Your task to perform on an android device: open chrome and create a bookmark for the current page Image 0: 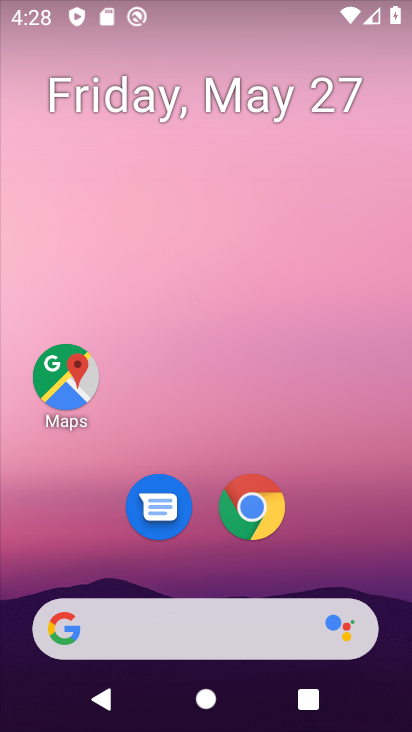
Step 0: click (251, 505)
Your task to perform on an android device: open chrome and create a bookmark for the current page Image 1: 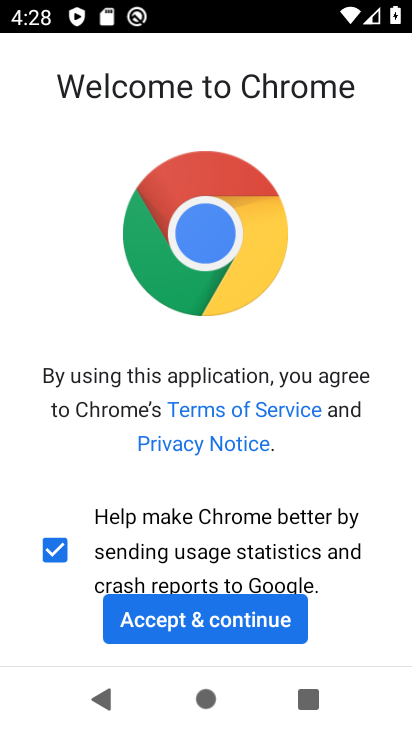
Step 1: click (205, 623)
Your task to perform on an android device: open chrome and create a bookmark for the current page Image 2: 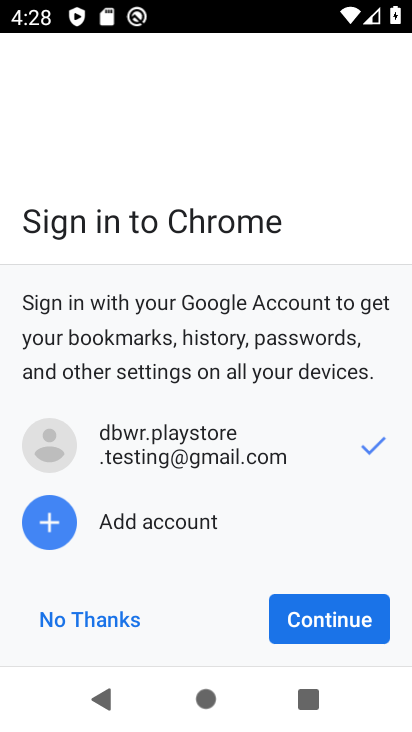
Step 2: click (321, 615)
Your task to perform on an android device: open chrome and create a bookmark for the current page Image 3: 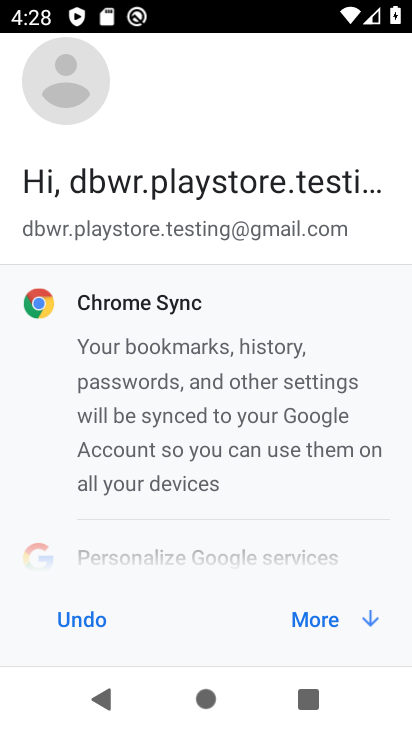
Step 3: click (321, 618)
Your task to perform on an android device: open chrome and create a bookmark for the current page Image 4: 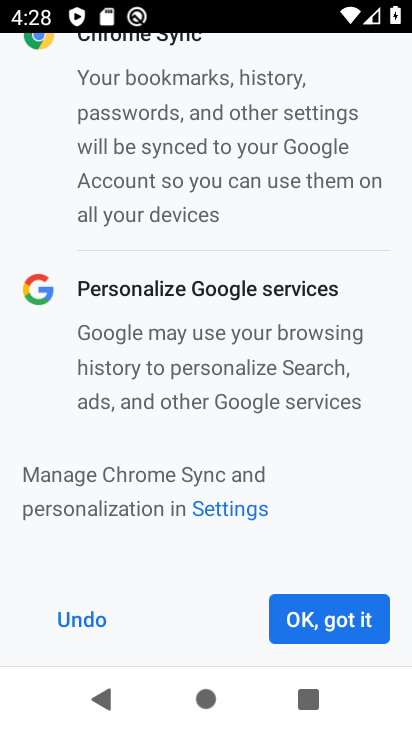
Step 4: click (321, 618)
Your task to perform on an android device: open chrome and create a bookmark for the current page Image 5: 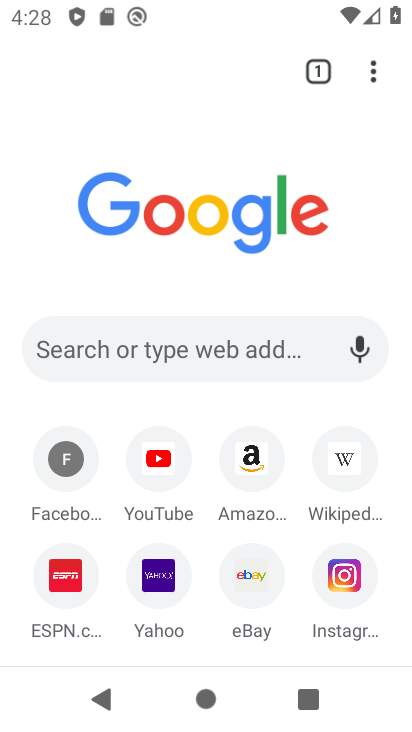
Step 5: click (373, 69)
Your task to perform on an android device: open chrome and create a bookmark for the current page Image 6: 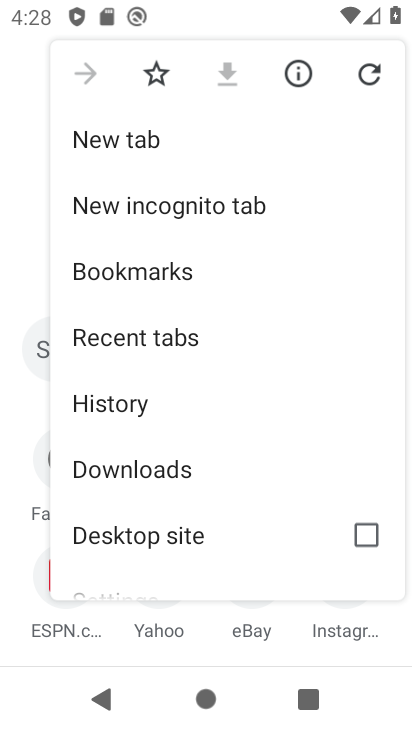
Step 6: click (157, 76)
Your task to perform on an android device: open chrome and create a bookmark for the current page Image 7: 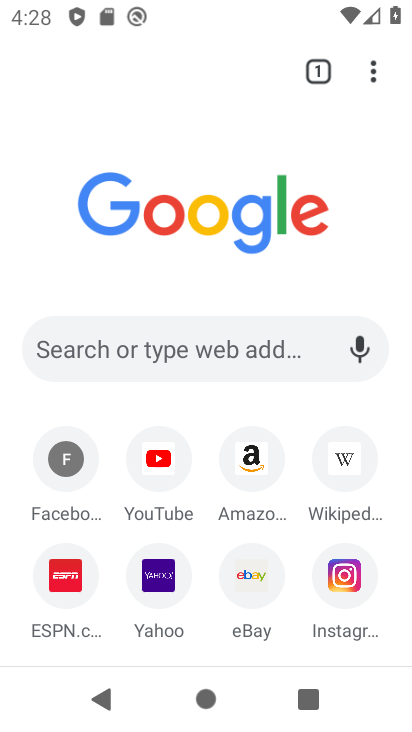
Step 7: task complete